Your task to perform on an android device: Open battery settings Image 0: 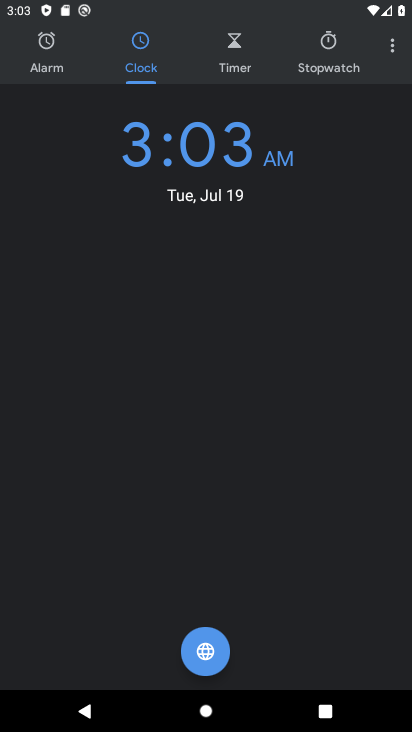
Step 0: press home button
Your task to perform on an android device: Open battery settings Image 1: 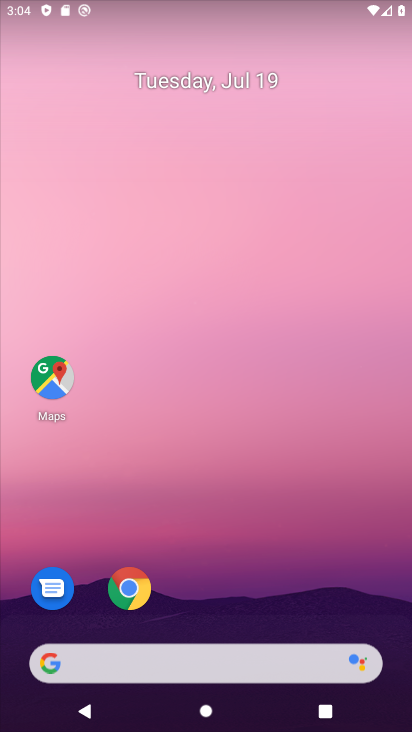
Step 1: drag from (221, 502) to (234, 135)
Your task to perform on an android device: Open battery settings Image 2: 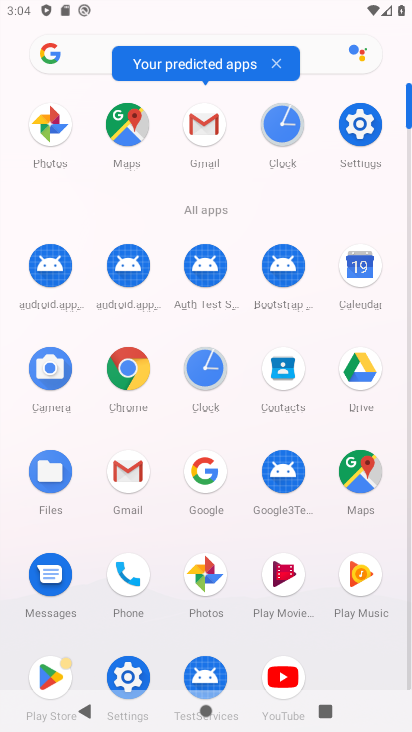
Step 2: click (348, 137)
Your task to perform on an android device: Open battery settings Image 3: 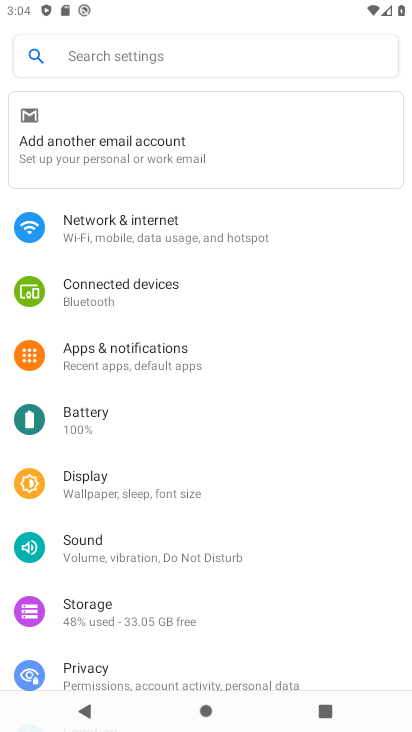
Step 3: click (114, 422)
Your task to perform on an android device: Open battery settings Image 4: 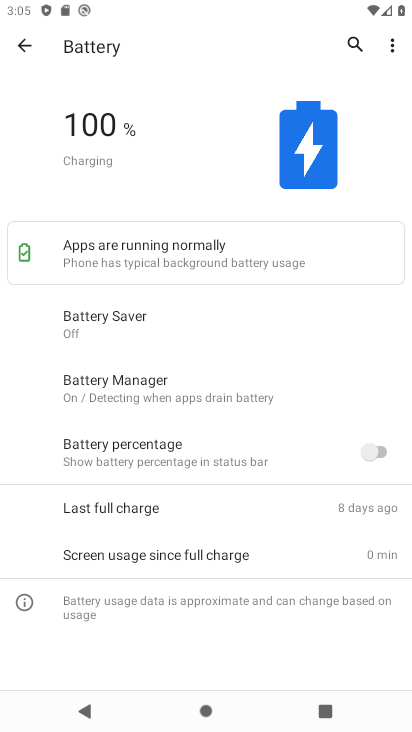
Step 4: task complete